Your task to perform on an android device: turn on priority inbox in the gmail app Image 0: 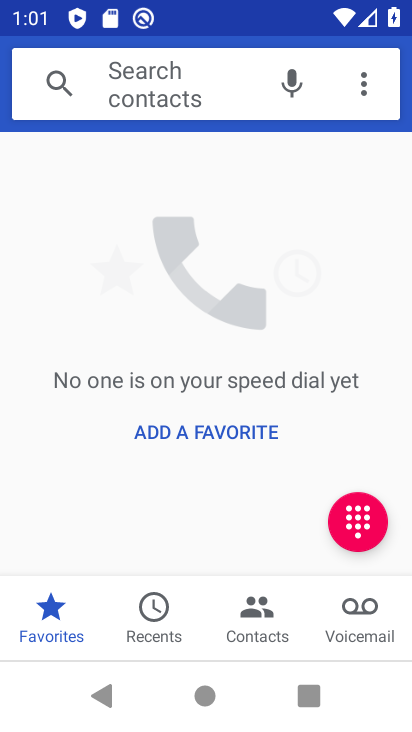
Step 0: press back button
Your task to perform on an android device: turn on priority inbox in the gmail app Image 1: 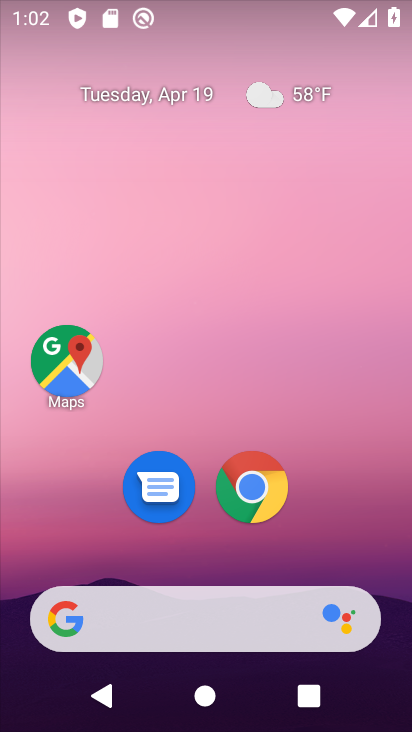
Step 1: drag from (204, 725) to (202, 14)
Your task to perform on an android device: turn on priority inbox in the gmail app Image 2: 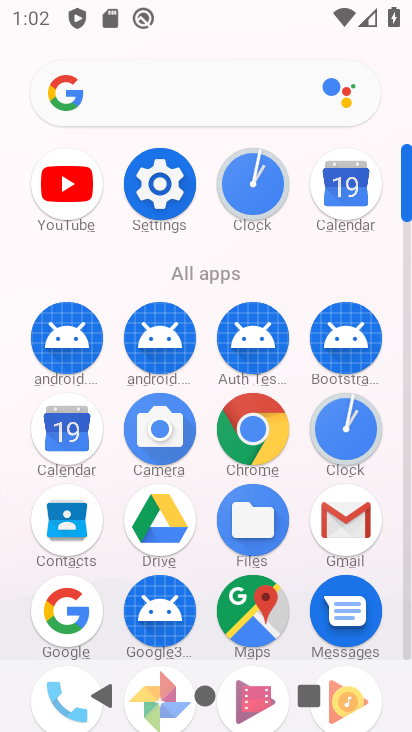
Step 2: click (360, 512)
Your task to perform on an android device: turn on priority inbox in the gmail app Image 3: 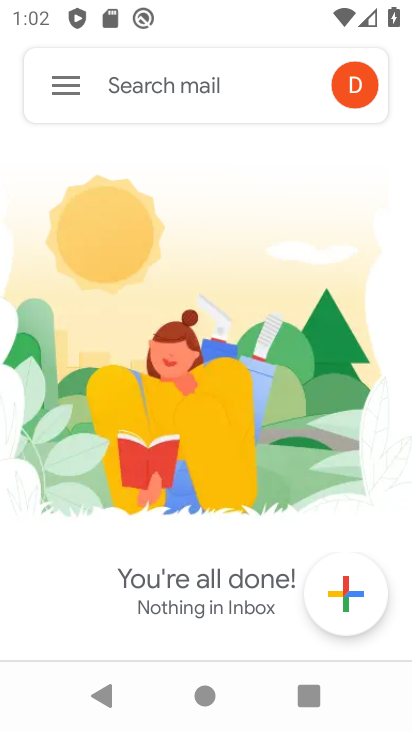
Step 3: click (55, 93)
Your task to perform on an android device: turn on priority inbox in the gmail app Image 4: 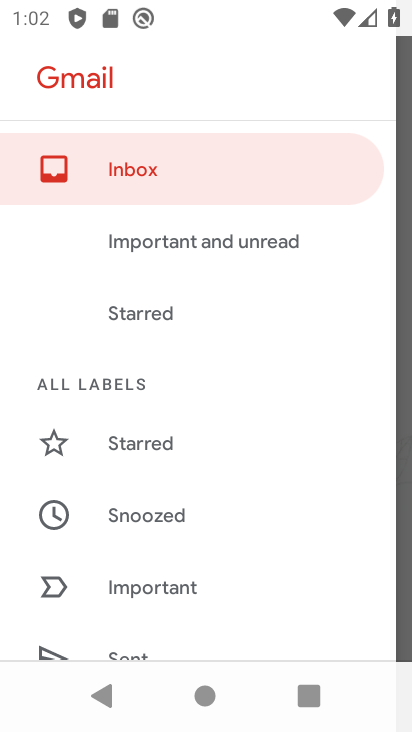
Step 4: drag from (166, 623) to (186, 157)
Your task to perform on an android device: turn on priority inbox in the gmail app Image 5: 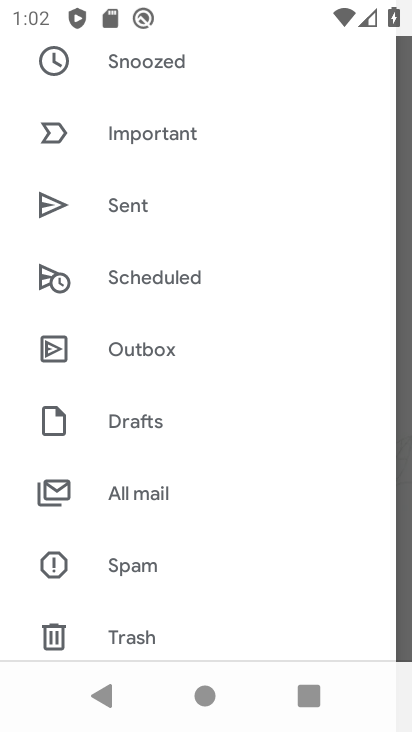
Step 5: drag from (186, 625) to (234, 125)
Your task to perform on an android device: turn on priority inbox in the gmail app Image 6: 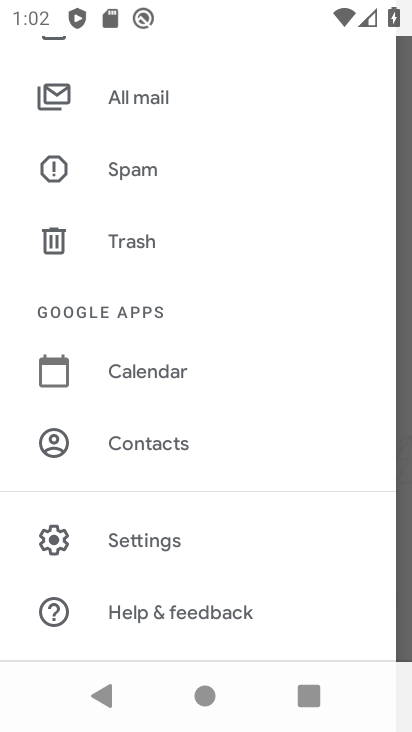
Step 6: click (151, 539)
Your task to perform on an android device: turn on priority inbox in the gmail app Image 7: 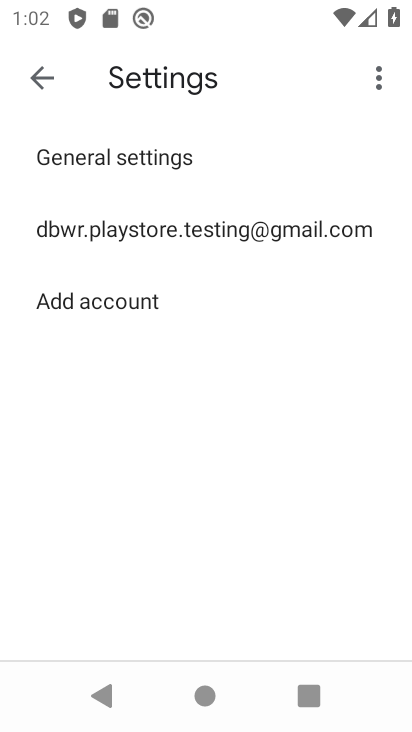
Step 7: click (140, 233)
Your task to perform on an android device: turn on priority inbox in the gmail app Image 8: 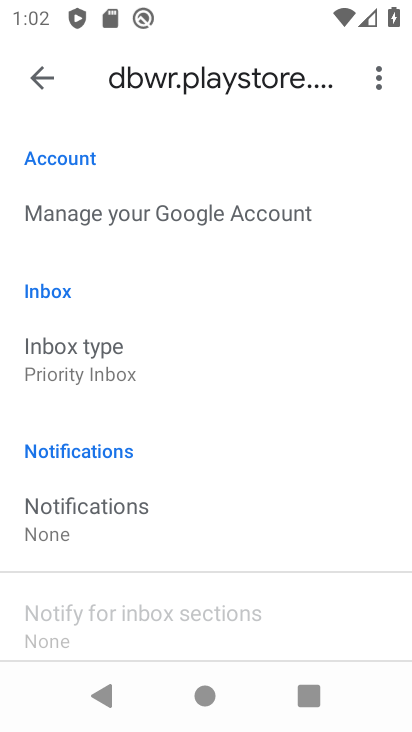
Step 8: task complete